Your task to perform on an android device: Go to calendar. Show me events next week Image 0: 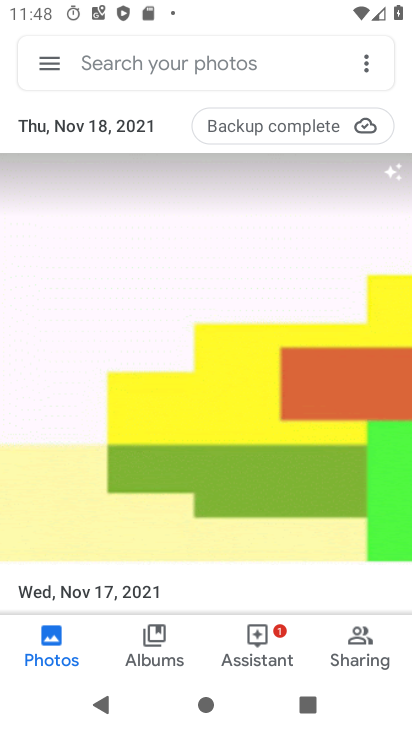
Step 0: press home button
Your task to perform on an android device: Go to calendar. Show me events next week Image 1: 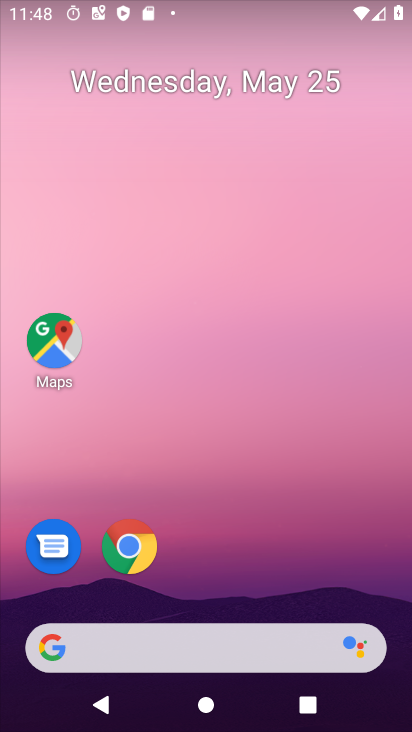
Step 1: drag from (244, 592) to (261, 49)
Your task to perform on an android device: Go to calendar. Show me events next week Image 2: 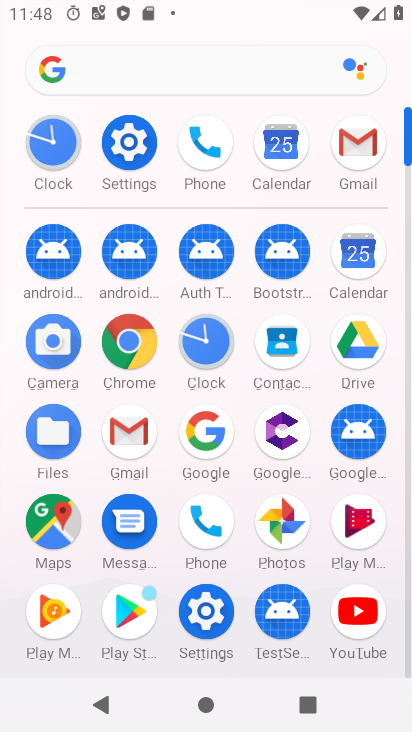
Step 2: click (363, 236)
Your task to perform on an android device: Go to calendar. Show me events next week Image 3: 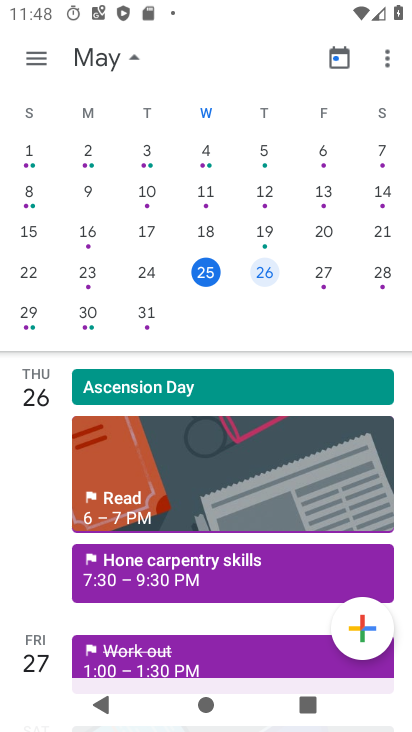
Step 3: click (17, 318)
Your task to perform on an android device: Go to calendar. Show me events next week Image 4: 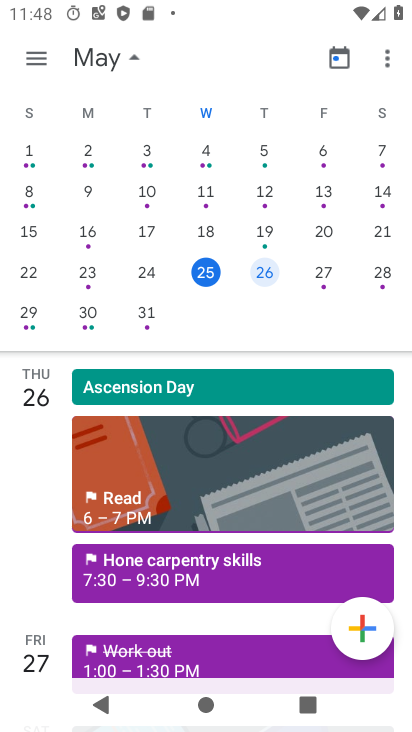
Step 4: click (30, 312)
Your task to perform on an android device: Go to calendar. Show me events next week Image 5: 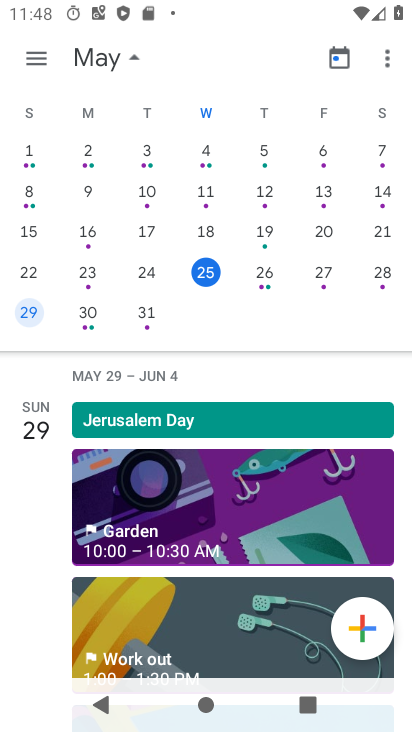
Step 5: task complete